Your task to perform on an android device: Open Yahoo.com Image 0: 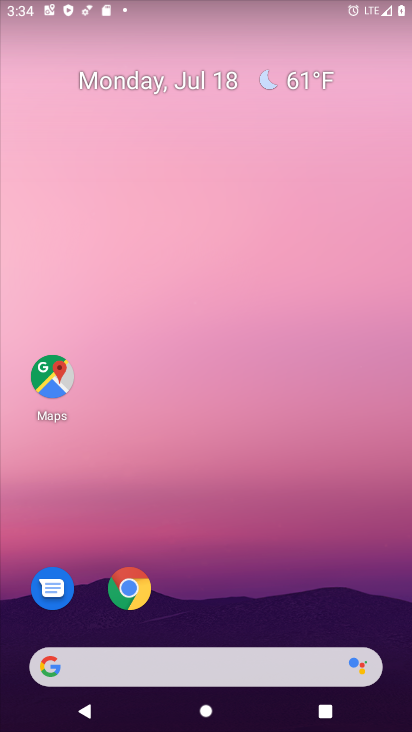
Step 0: click (120, 582)
Your task to perform on an android device: Open Yahoo.com Image 1: 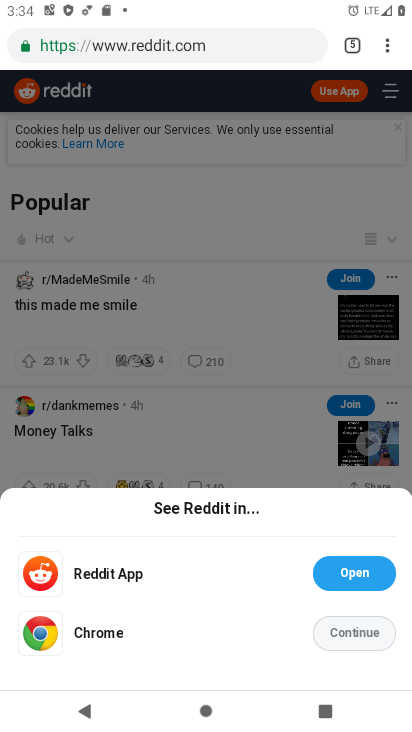
Step 1: click (354, 38)
Your task to perform on an android device: Open Yahoo.com Image 2: 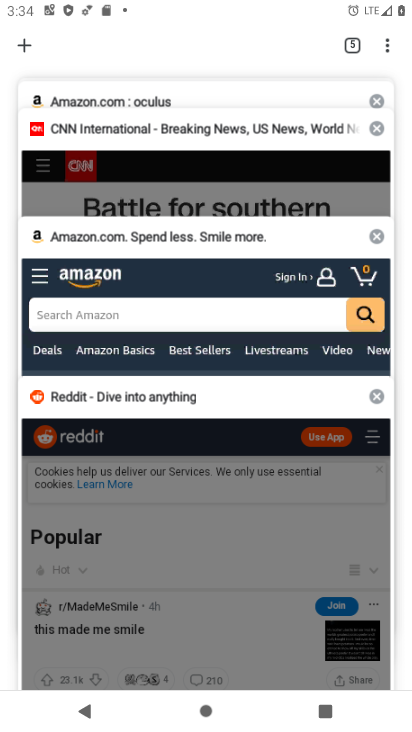
Step 2: click (22, 39)
Your task to perform on an android device: Open Yahoo.com Image 3: 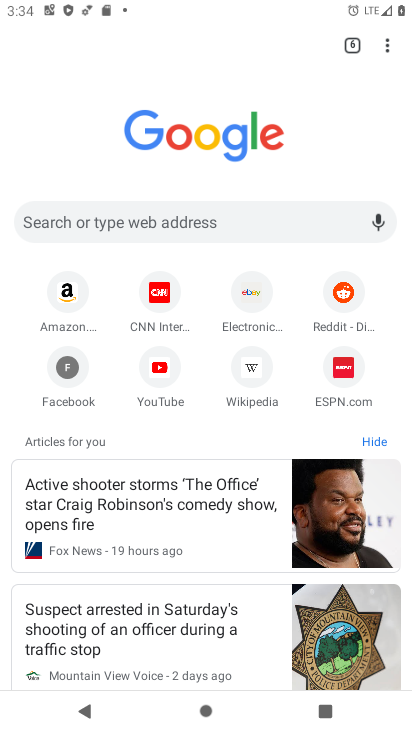
Step 3: click (124, 218)
Your task to perform on an android device: Open Yahoo.com Image 4: 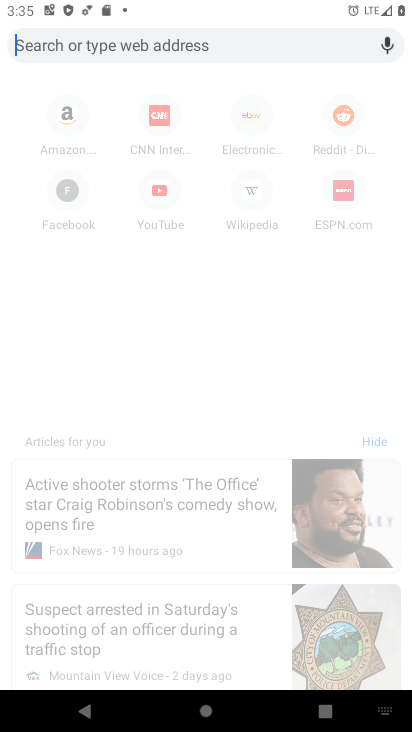
Step 4: type "yahoo.com"
Your task to perform on an android device: Open Yahoo.com Image 5: 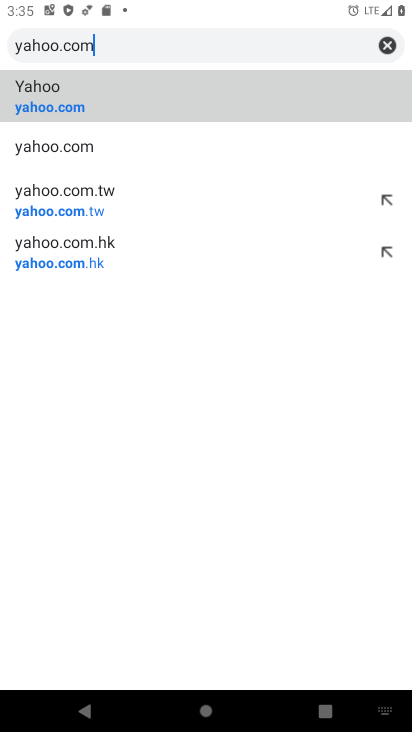
Step 5: click (174, 96)
Your task to perform on an android device: Open Yahoo.com Image 6: 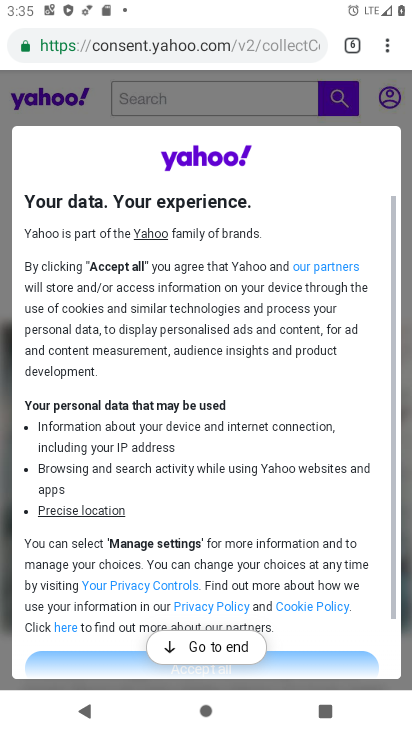
Step 6: task complete